Your task to perform on an android device: change the clock style Image 0: 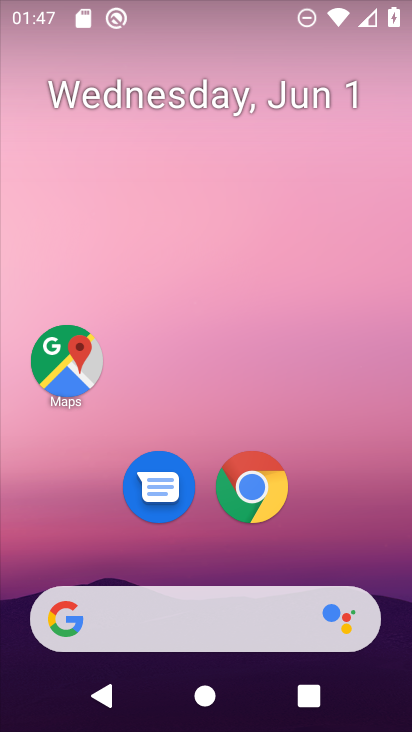
Step 0: drag from (310, 577) to (304, 233)
Your task to perform on an android device: change the clock style Image 1: 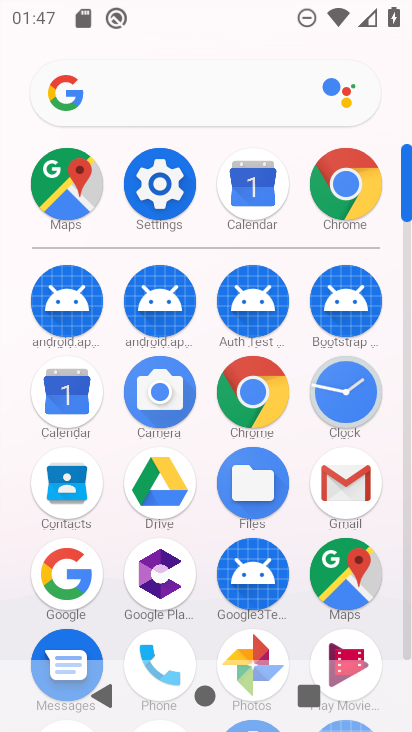
Step 1: click (339, 391)
Your task to perform on an android device: change the clock style Image 2: 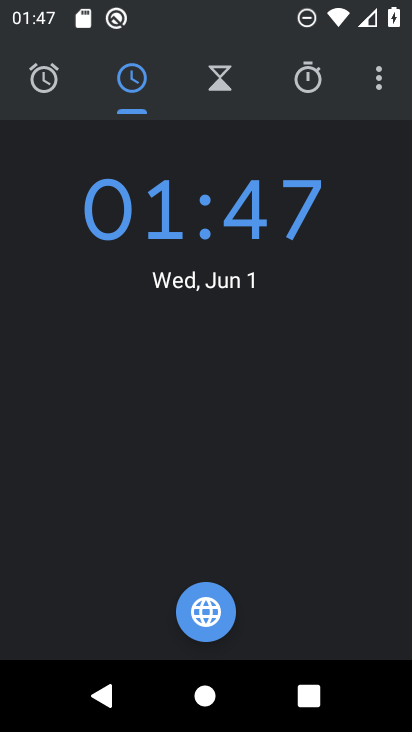
Step 2: click (382, 81)
Your task to perform on an android device: change the clock style Image 3: 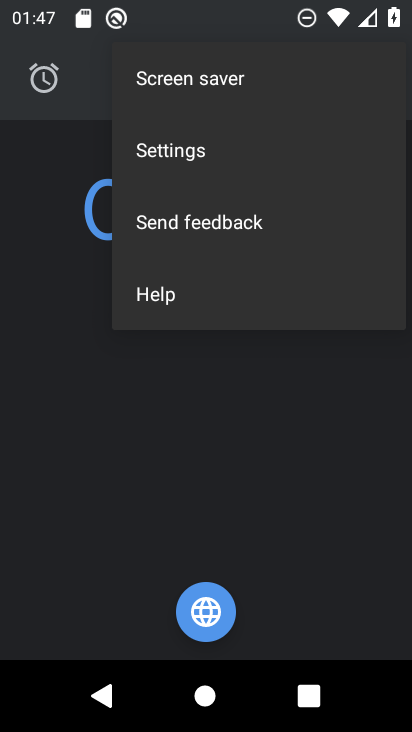
Step 3: click (173, 152)
Your task to perform on an android device: change the clock style Image 4: 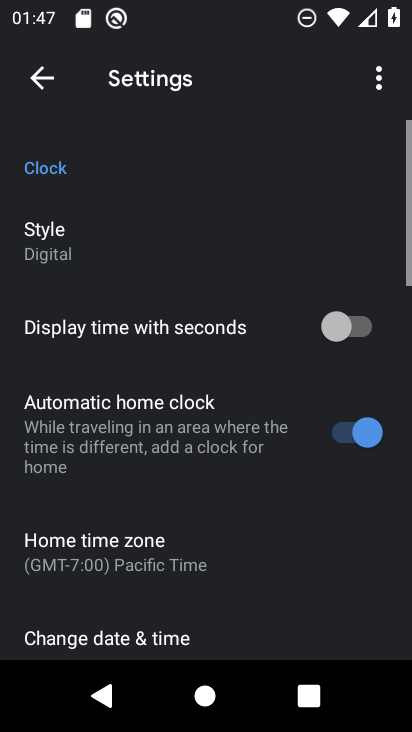
Step 4: click (110, 252)
Your task to perform on an android device: change the clock style Image 5: 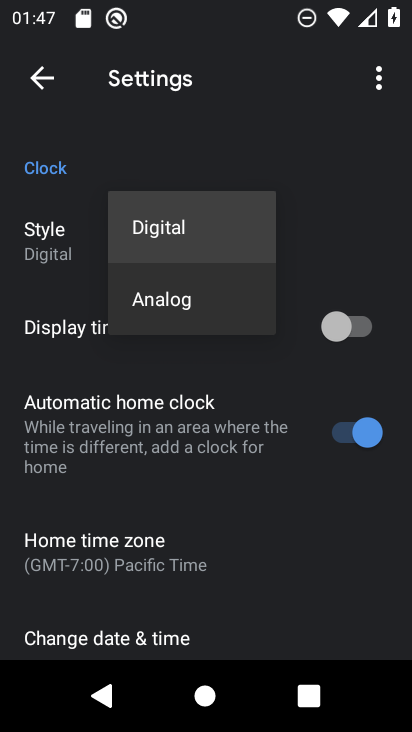
Step 5: click (181, 301)
Your task to perform on an android device: change the clock style Image 6: 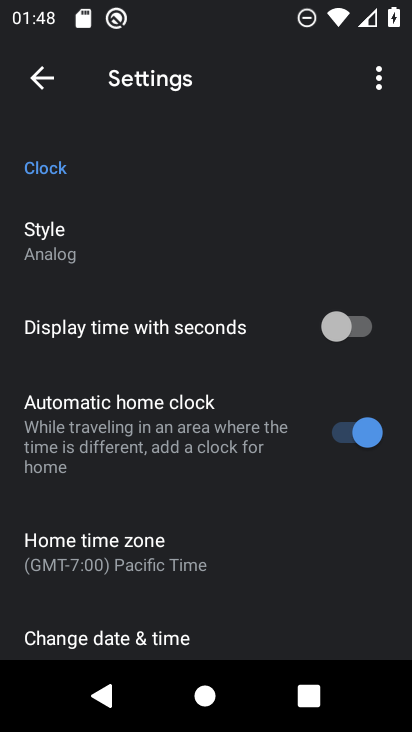
Step 6: task complete